Your task to perform on an android device: Go to battery settings Image 0: 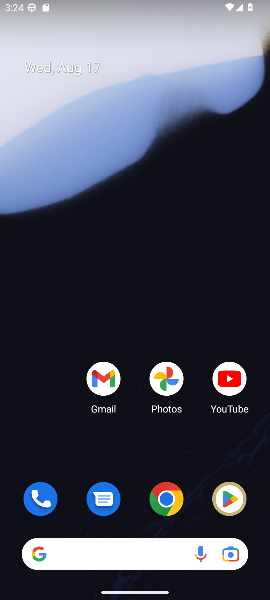
Step 0: drag from (210, 464) to (219, 12)
Your task to perform on an android device: Go to battery settings Image 1: 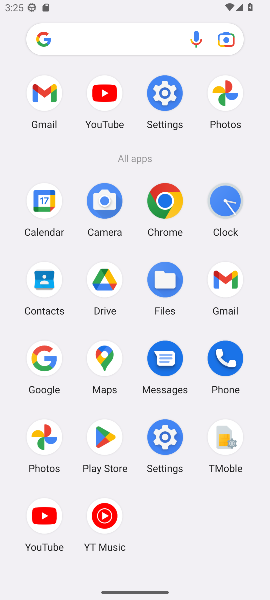
Step 1: click (160, 437)
Your task to perform on an android device: Go to battery settings Image 2: 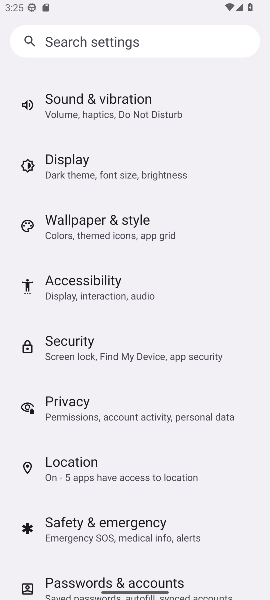
Step 2: drag from (105, 468) to (115, 233)
Your task to perform on an android device: Go to battery settings Image 3: 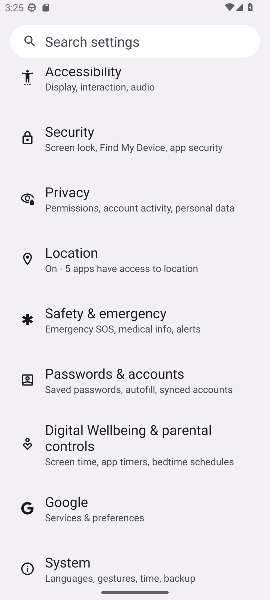
Step 3: drag from (136, 138) to (124, 427)
Your task to perform on an android device: Go to battery settings Image 4: 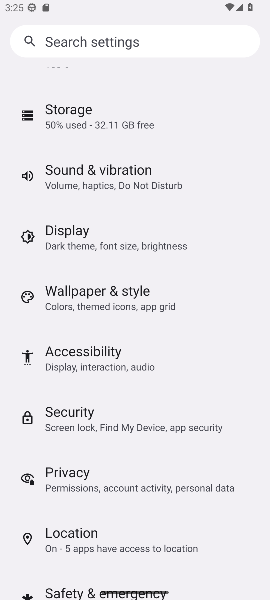
Step 4: drag from (143, 208) to (137, 428)
Your task to perform on an android device: Go to battery settings Image 5: 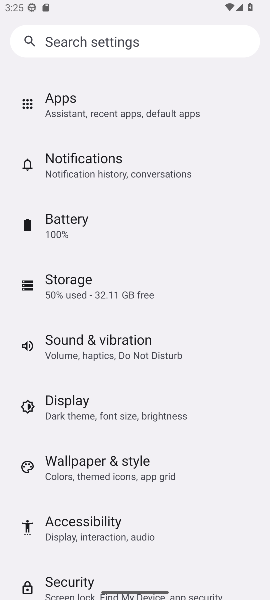
Step 5: click (73, 214)
Your task to perform on an android device: Go to battery settings Image 6: 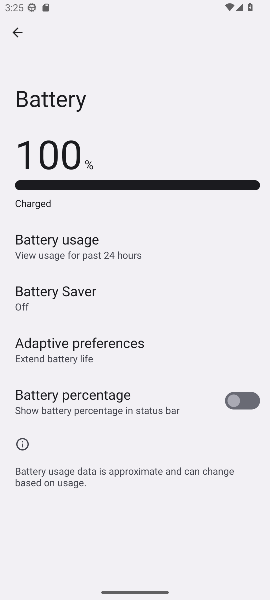
Step 6: task complete